Your task to perform on an android device: change the clock display to analog Image 0: 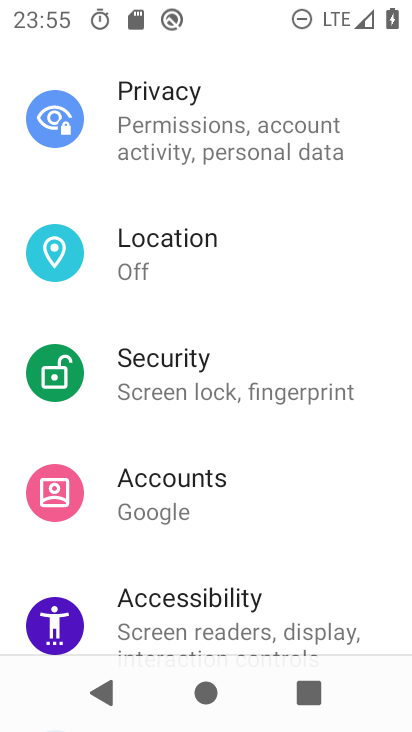
Step 0: press home button
Your task to perform on an android device: change the clock display to analog Image 1: 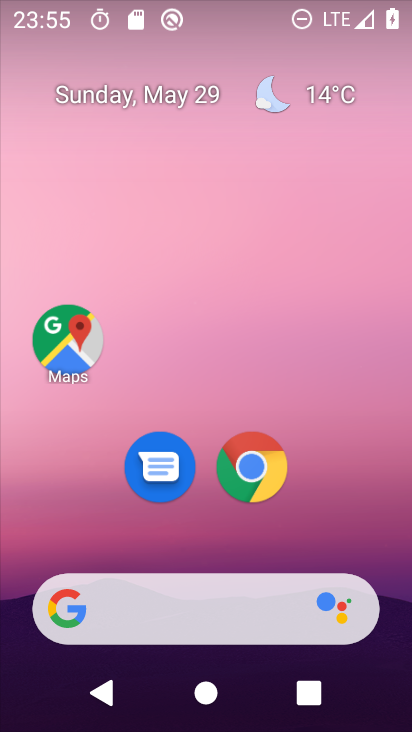
Step 1: drag from (203, 546) to (200, 186)
Your task to perform on an android device: change the clock display to analog Image 2: 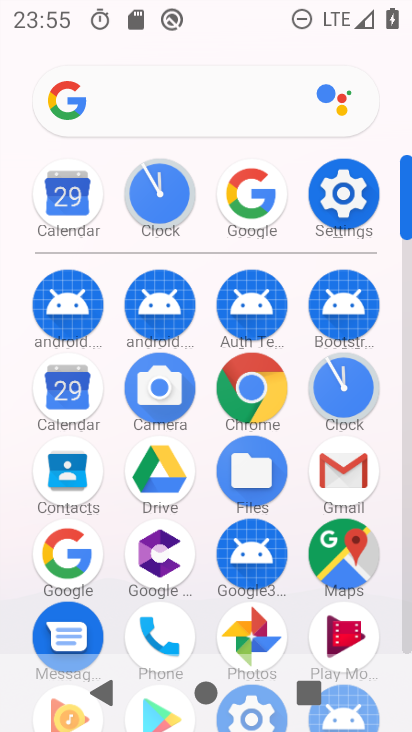
Step 2: click (354, 374)
Your task to perform on an android device: change the clock display to analog Image 3: 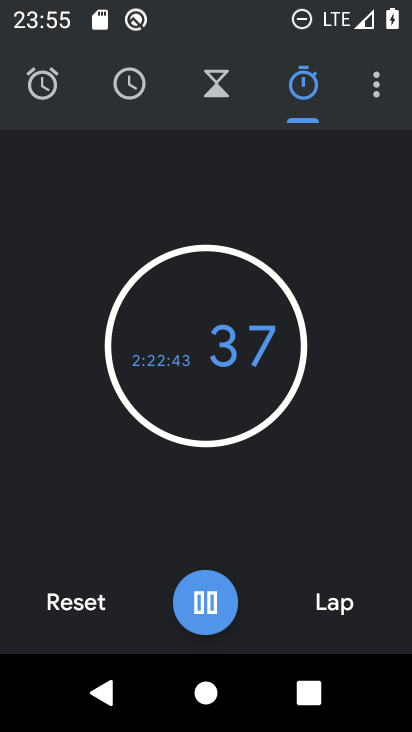
Step 3: click (372, 97)
Your task to perform on an android device: change the clock display to analog Image 4: 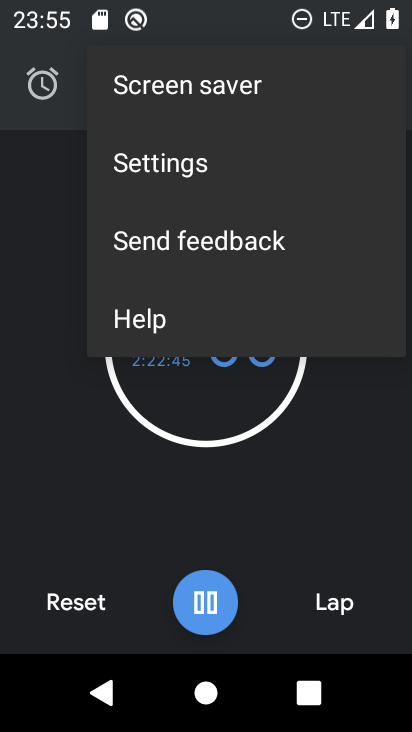
Step 4: click (166, 183)
Your task to perform on an android device: change the clock display to analog Image 5: 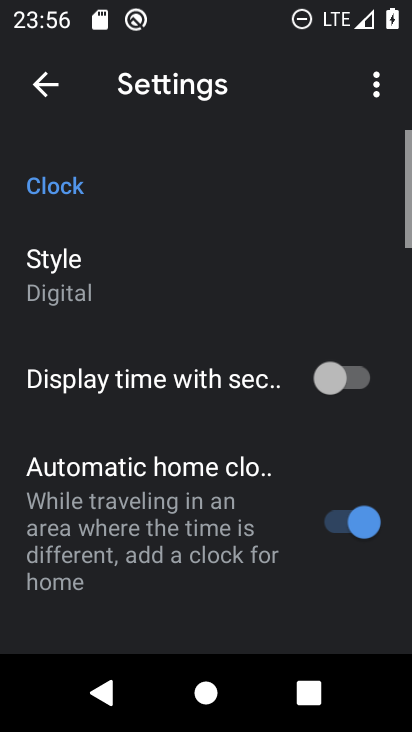
Step 5: click (141, 270)
Your task to perform on an android device: change the clock display to analog Image 6: 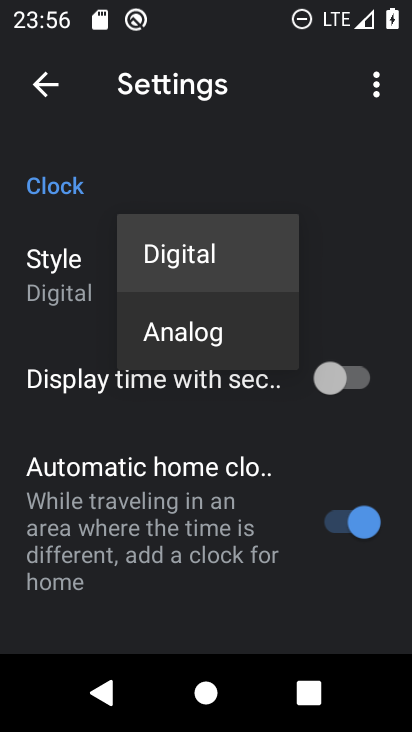
Step 6: click (165, 343)
Your task to perform on an android device: change the clock display to analog Image 7: 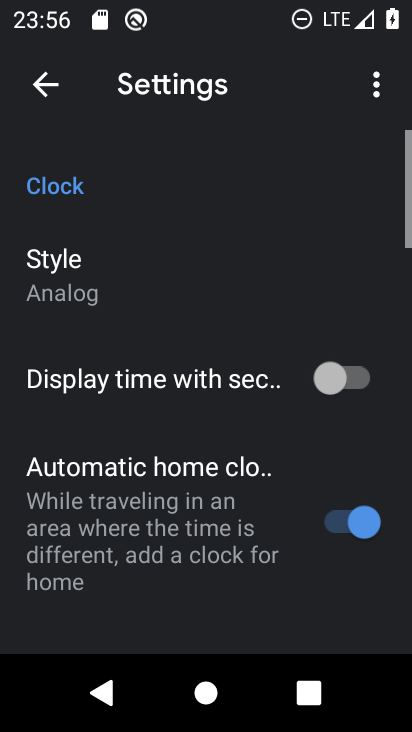
Step 7: task complete